Your task to perform on an android device: Go to Reddit.com Image 0: 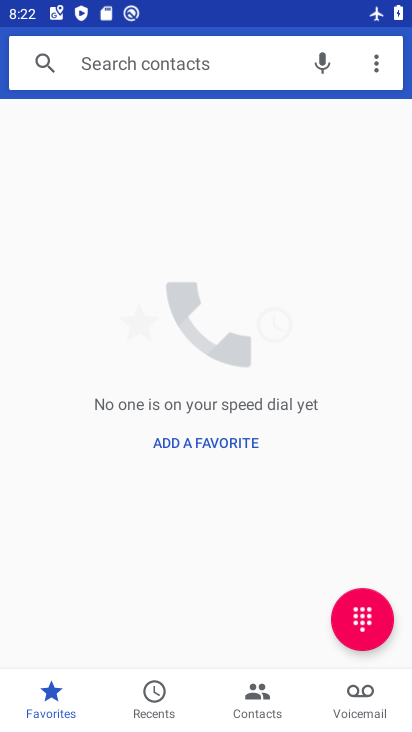
Step 0: press home button
Your task to perform on an android device: Go to Reddit.com Image 1: 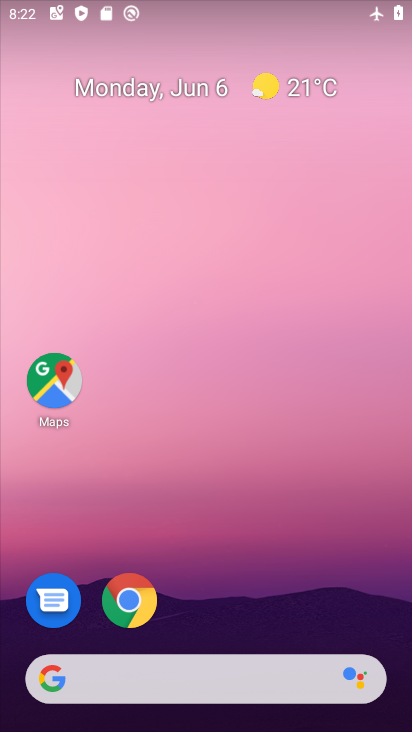
Step 1: click (127, 603)
Your task to perform on an android device: Go to Reddit.com Image 2: 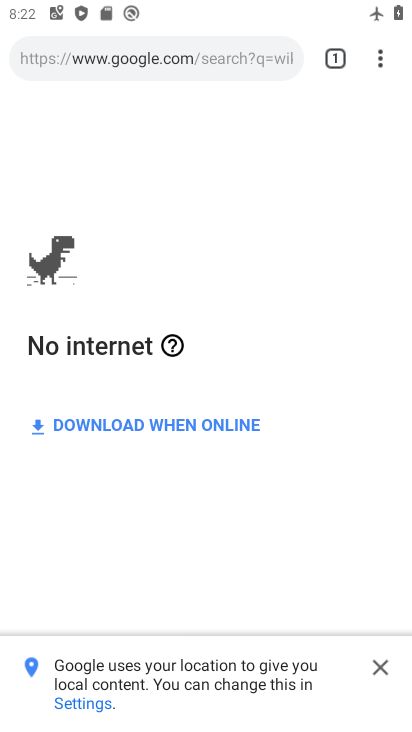
Step 2: click (239, 41)
Your task to perform on an android device: Go to Reddit.com Image 3: 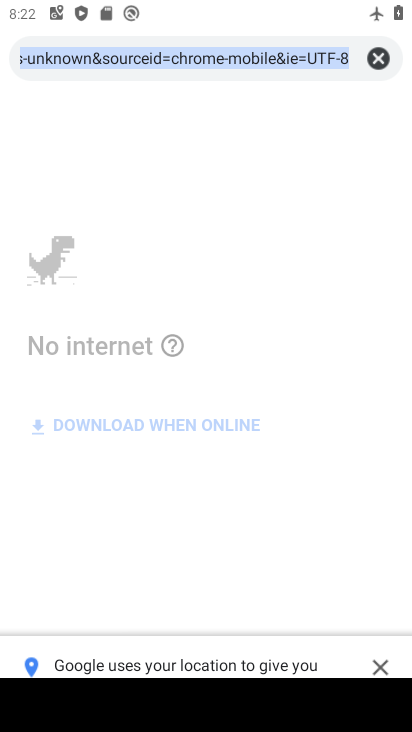
Step 3: click (375, 55)
Your task to perform on an android device: Go to Reddit.com Image 4: 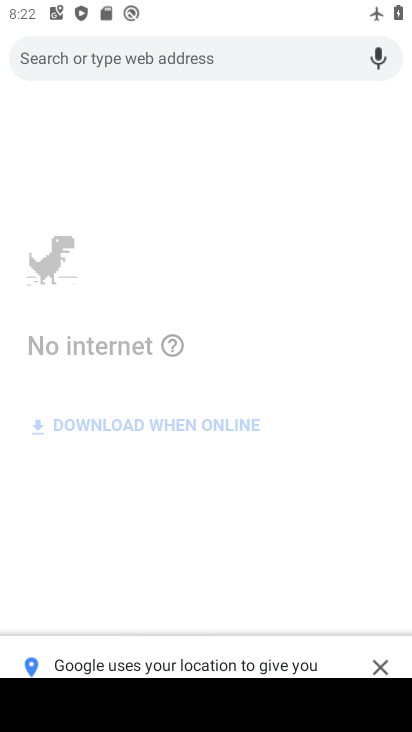
Step 4: type "reddit.com"
Your task to perform on an android device: Go to Reddit.com Image 5: 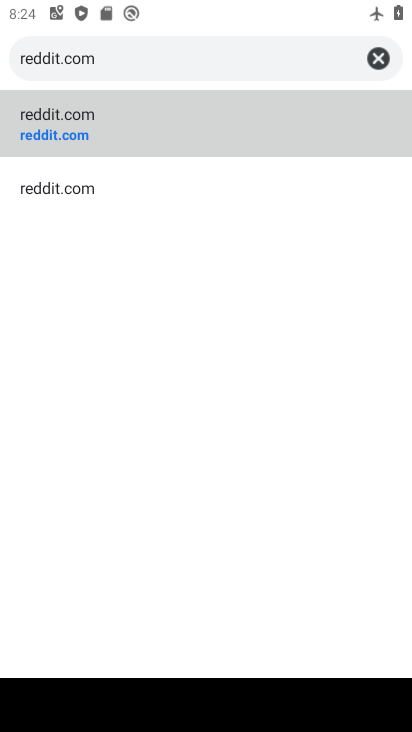
Step 5: click (46, 110)
Your task to perform on an android device: Go to Reddit.com Image 6: 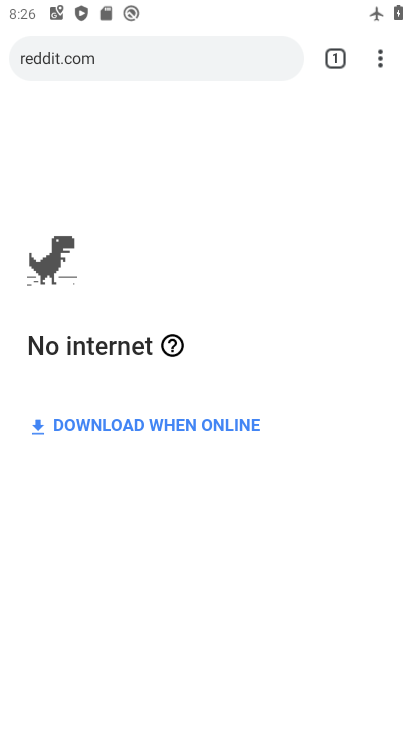
Step 6: task complete